Your task to perform on an android device: Open the calendar app, open the side menu, and click the "Day" option Image 0: 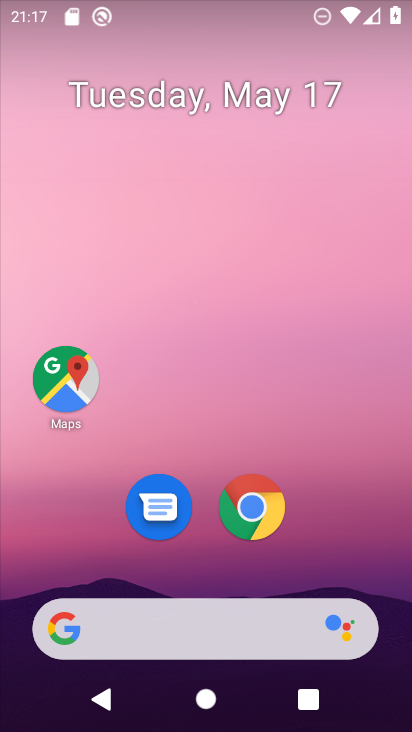
Step 0: drag from (379, 572) to (139, 33)
Your task to perform on an android device: Open the calendar app, open the side menu, and click the "Day" option Image 1: 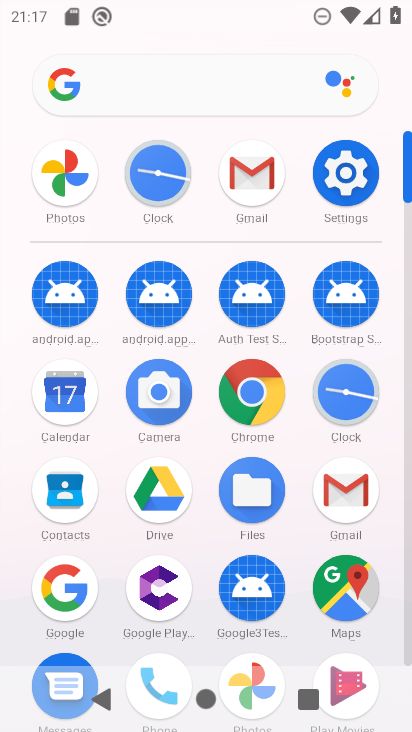
Step 1: click (76, 391)
Your task to perform on an android device: Open the calendar app, open the side menu, and click the "Day" option Image 2: 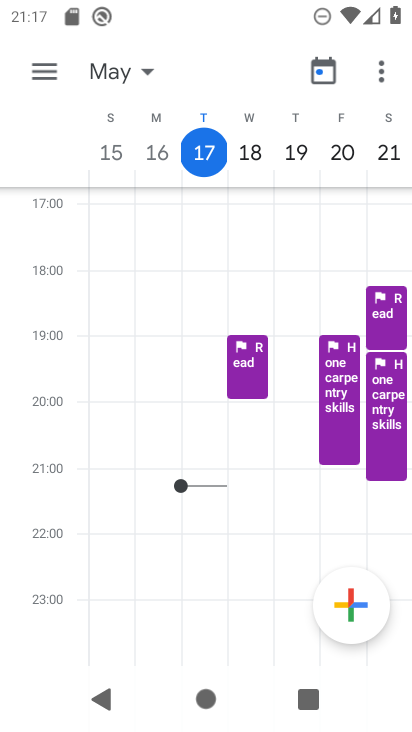
Step 2: click (41, 70)
Your task to perform on an android device: Open the calendar app, open the side menu, and click the "Day" option Image 3: 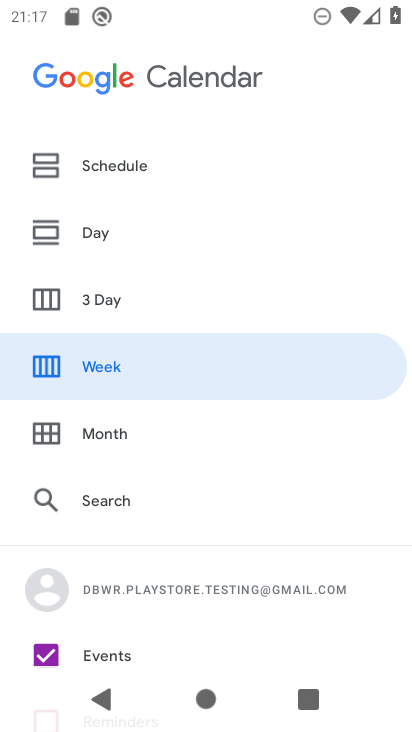
Step 3: click (97, 234)
Your task to perform on an android device: Open the calendar app, open the side menu, and click the "Day" option Image 4: 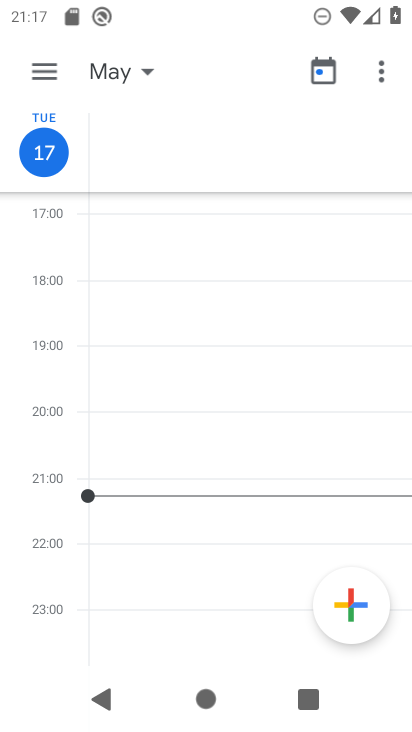
Step 4: task complete